Your task to perform on an android device: turn on javascript in the chrome app Image 0: 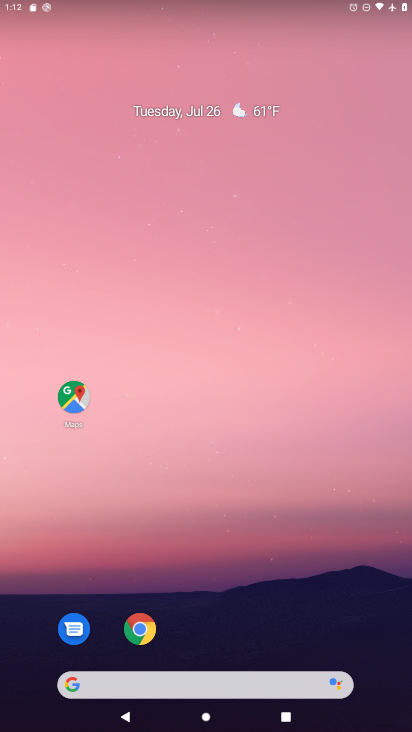
Step 0: drag from (189, 657) to (117, 214)
Your task to perform on an android device: turn on javascript in the chrome app Image 1: 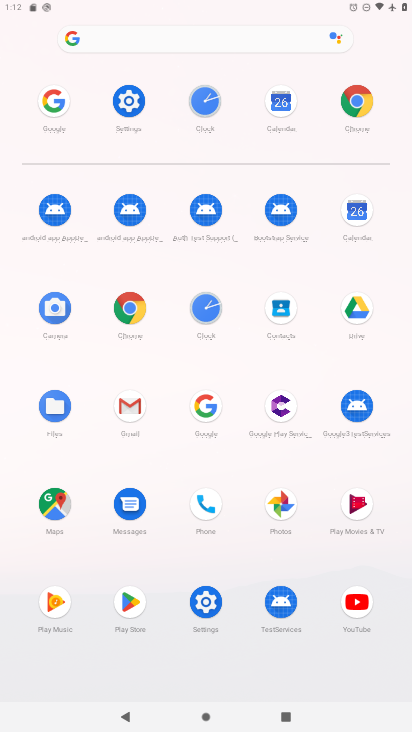
Step 1: click (135, 316)
Your task to perform on an android device: turn on javascript in the chrome app Image 2: 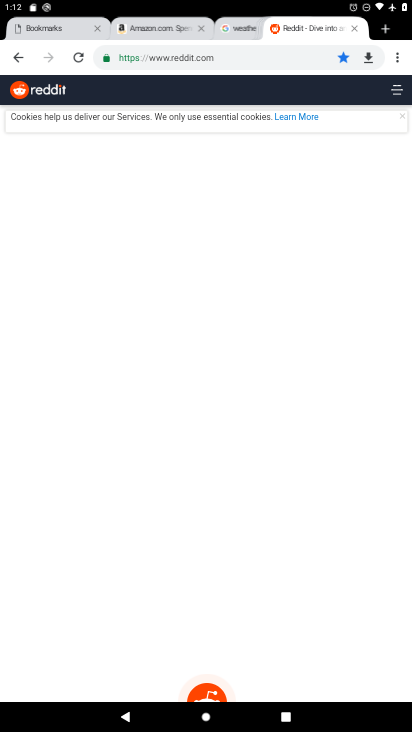
Step 2: drag from (400, 61) to (276, 376)
Your task to perform on an android device: turn on javascript in the chrome app Image 3: 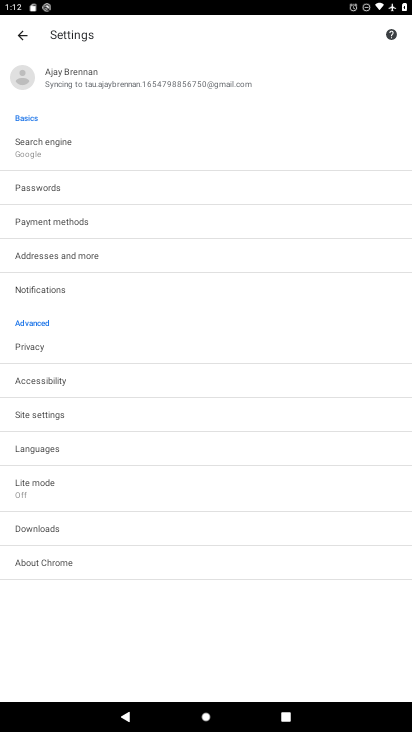
Step 3: click (40, 426)
Your task to perform on an android device: turn on javascript in the chrome app Image 4: 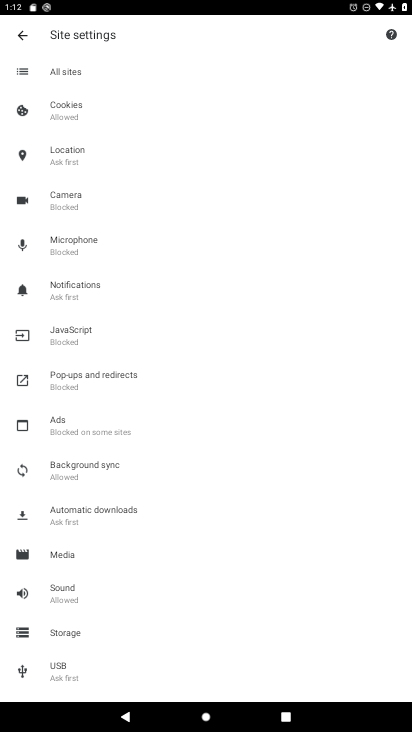
Step 4: click (62, 321)
Your task to perform on an android device: turn on javascript in the chrome app Image 5: 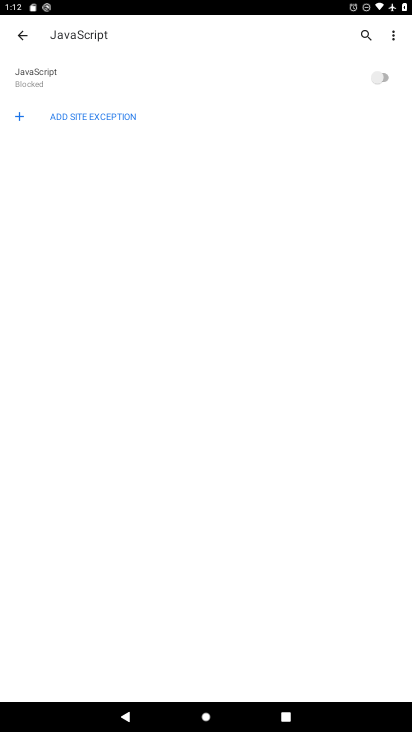
Step 5: click (383, 71)
Your task to perform on an android device: turn on javascript in the chrome app Image 6: 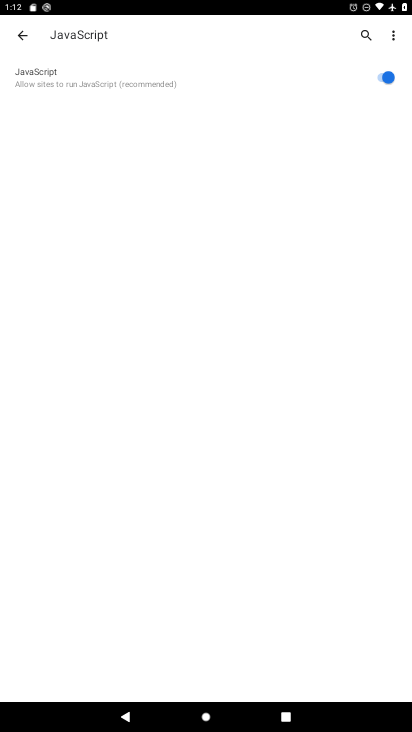
Step 6: task complete